Your task to perform on an android device: see tabs open on other devices in the chrome app Image 0: 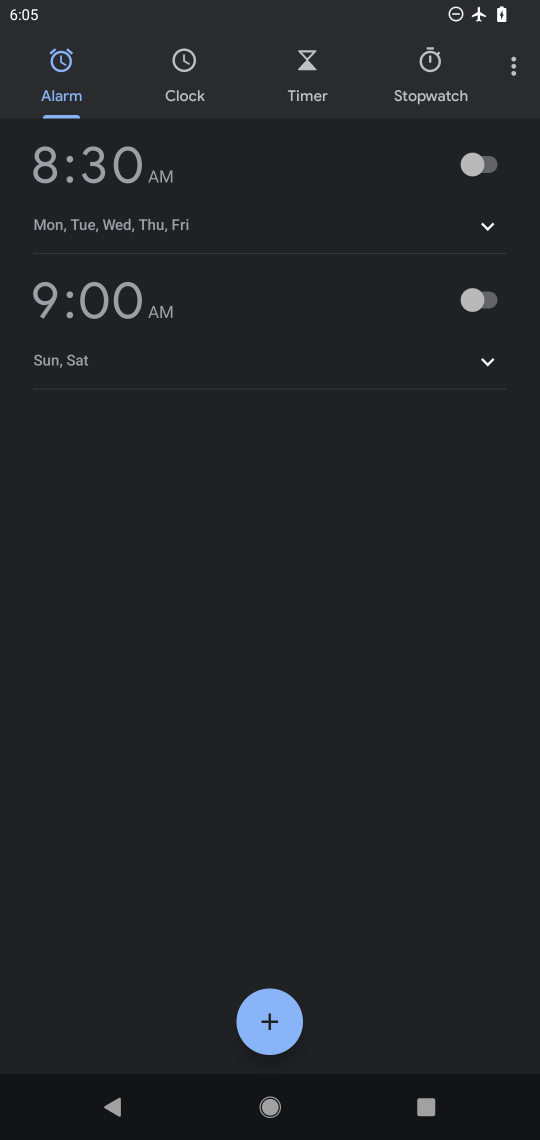
Step 0: press home button
Your task to perform on an android device: see tabs open on other devices in the chrome app Image 1: 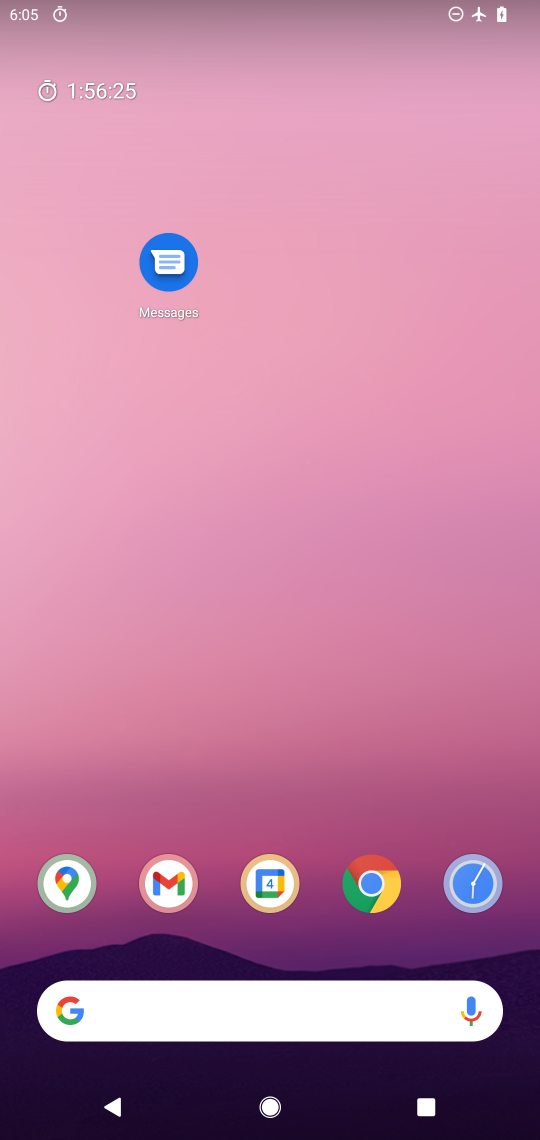
Step 1: click (374, 883)
Your task to perform on an android device: see tabs open on other devices in the chrome app Image 2: 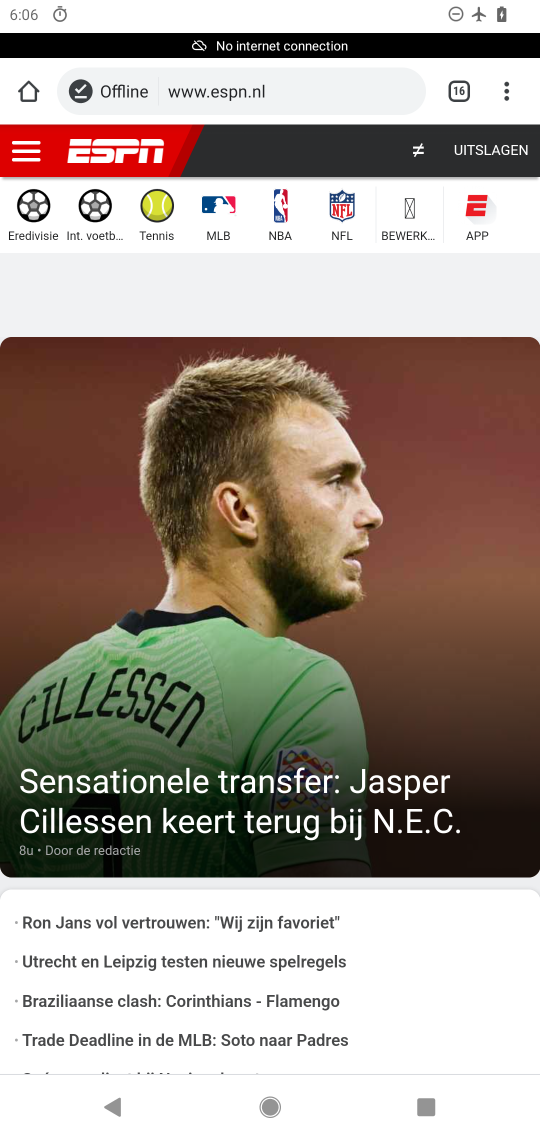
Step 2: click (508, 106)
Your task to perform on an android device: see tabs open on other devices in the chrome app Image 3: 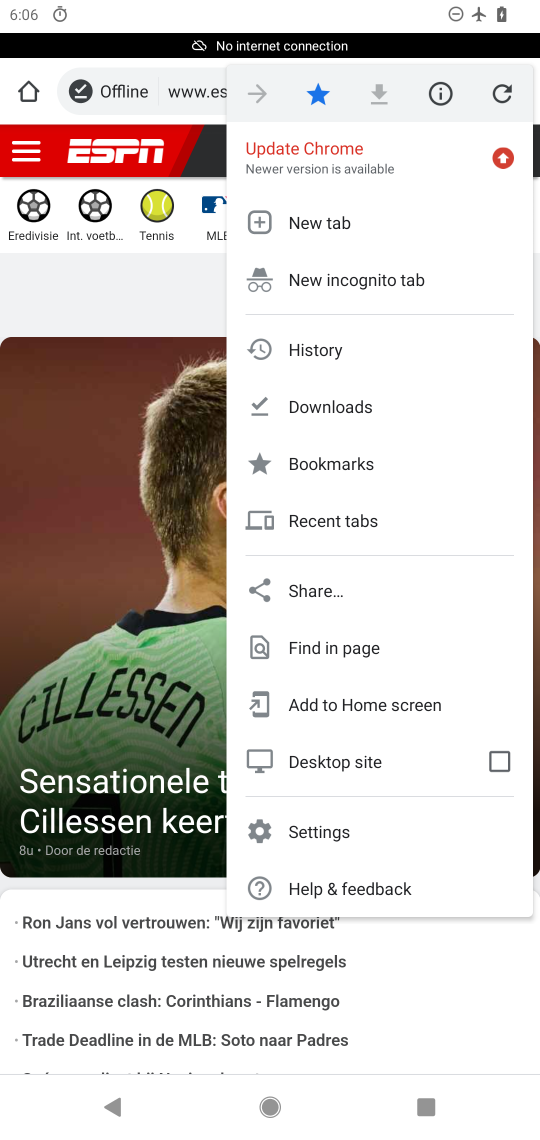
Step 3: click (338, 523)
Your task to perform on an android device: see tabs open on other devices in the chrome app Image 4: 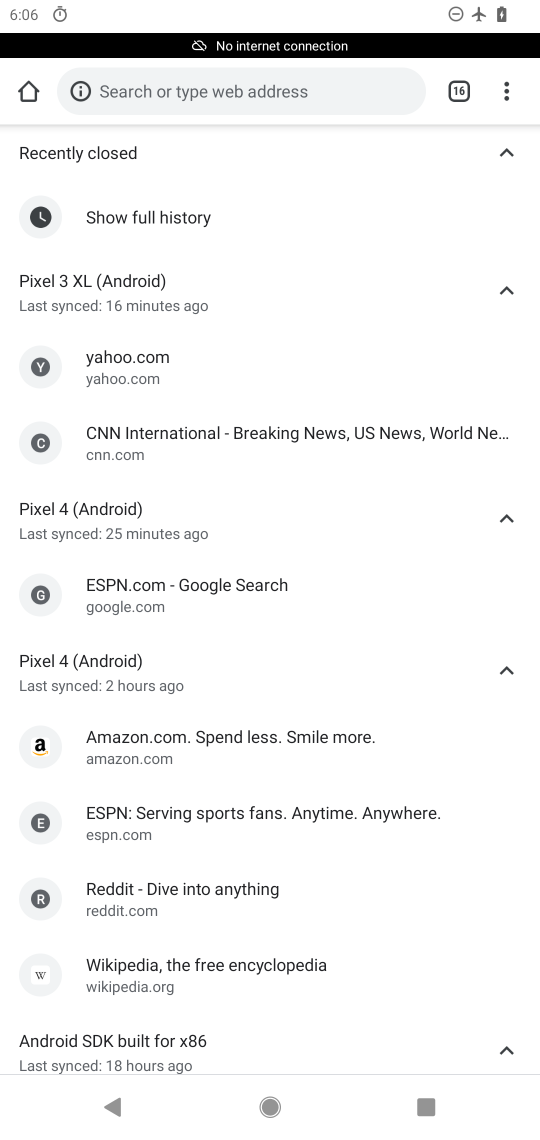
Step 4: task complete